Your task to perform on an android device: set the stopwatch Image 0: 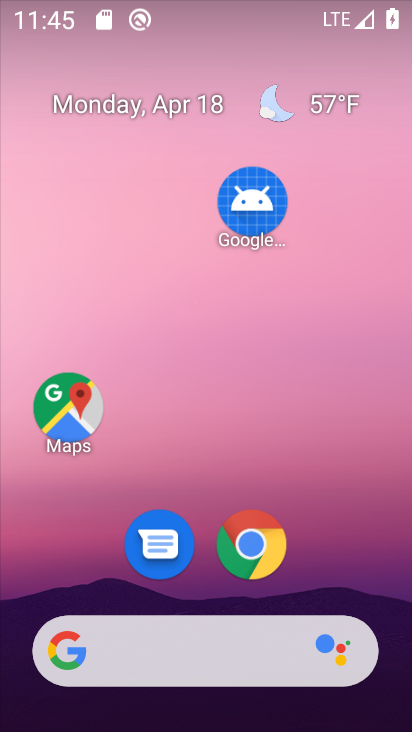
Step 0: drag from (223, 402) to (214, 117)
Your task to perform on an android device: set the stopwatch Image 1: 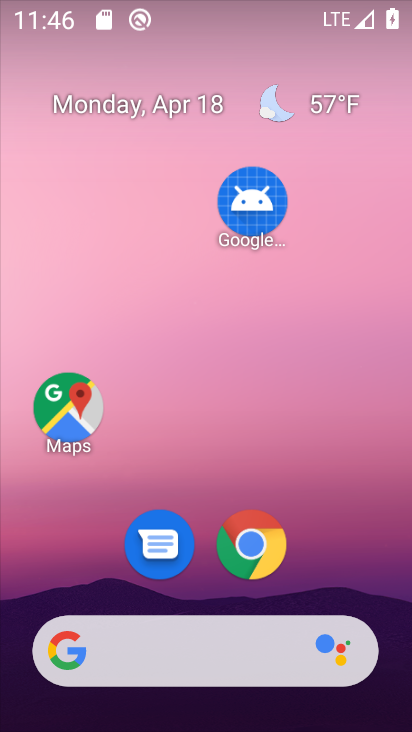
Step 1: drag from (340, 571) to (312, 175)
Your task to perform on an android device: set the stopwatch Image 2: 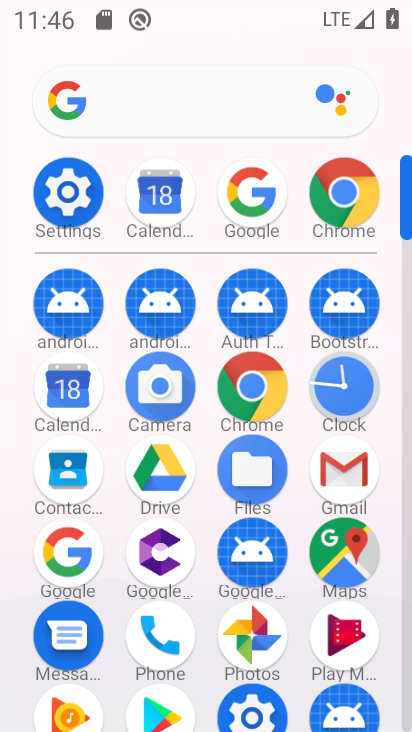
Step 2: click (323, 378)
Your task to perform on an android device: set the stopwatch Image 3: 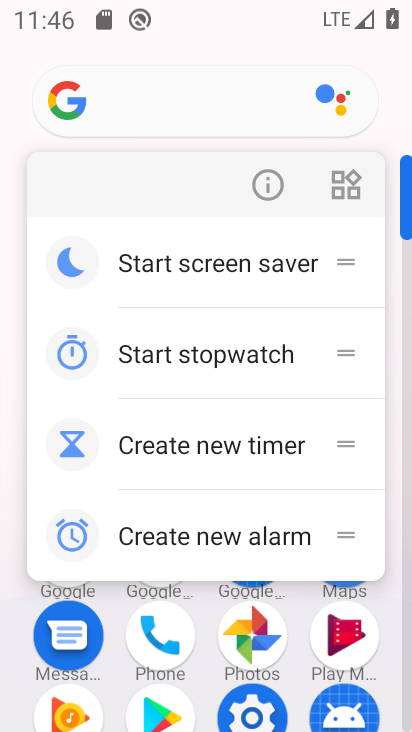
Step 3: press back button
Your task to perform on an android device: set the stopwatch Image 4: 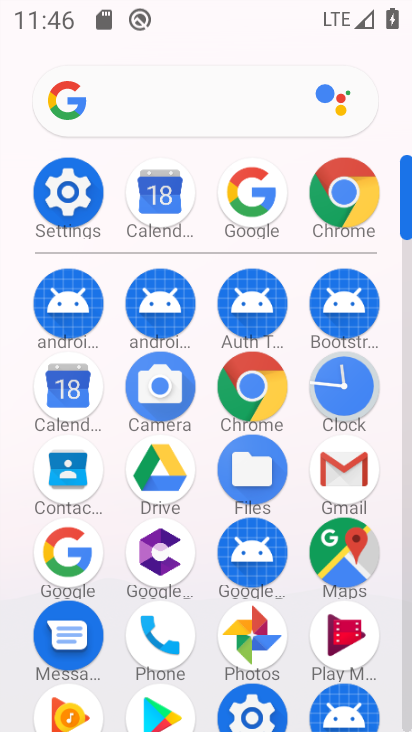
Step 4: click (346, 389)
Your task to perform on an android device: set the stopwatch Image 5: 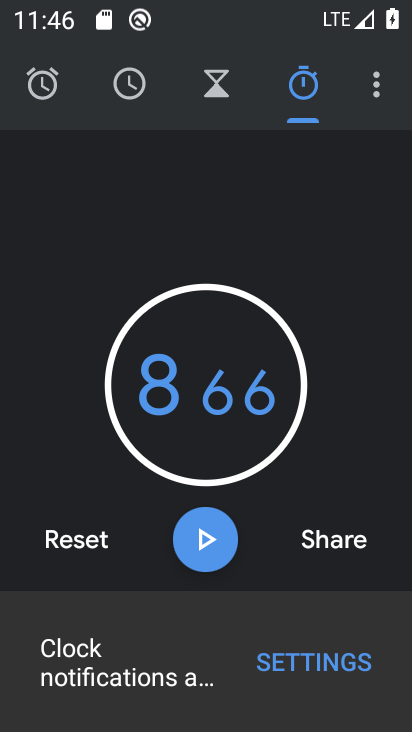
Step 5: click (289, 85)
Your task to perform on an android device: set the stopwatch Image 6: 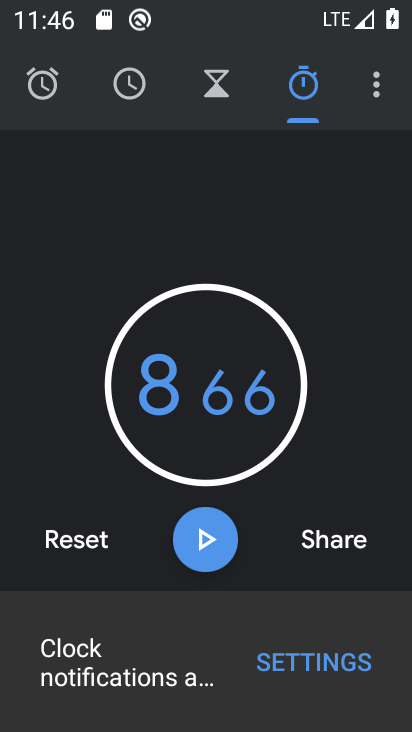
Step 6: click (75, 551)
Your task to perform on an android device: set the stopwatch Image 7: 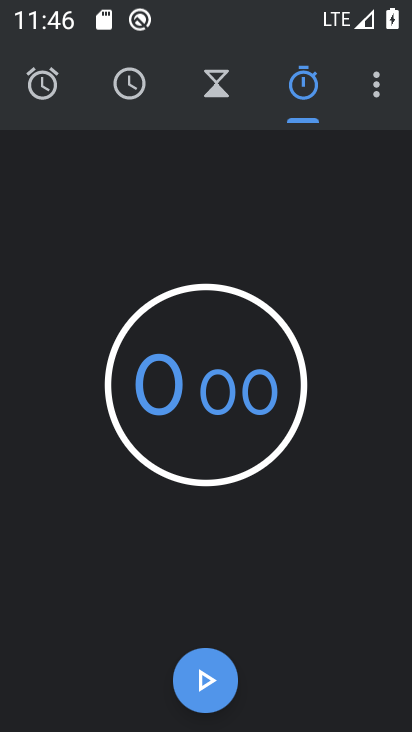
Step 7: click (194, 665)
Your task to perform on an android device: set the stopwatch Image 8: 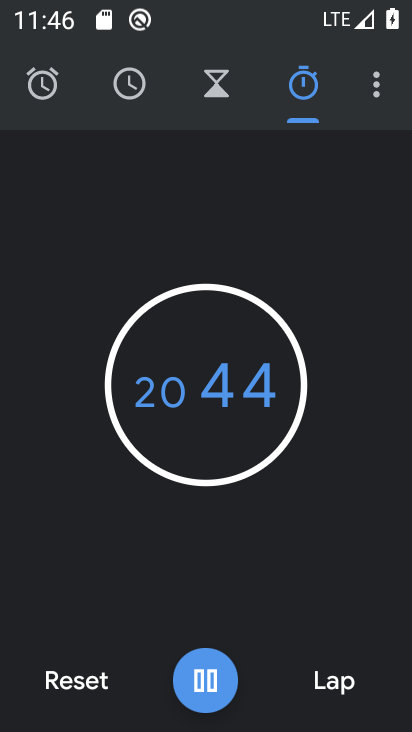
Step 8: click (194, 665)
Your task to perform on an android device: set the stopwatch Image 9: 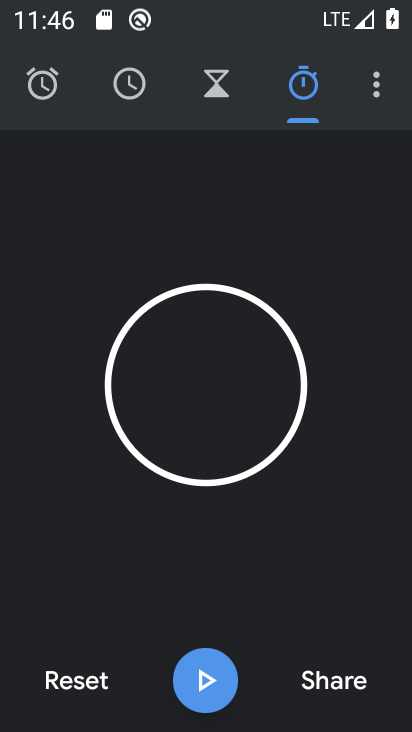
Step 9: task complete